Your task to perform on an android device: see tabs open on other devices in the chrome app Image 0: 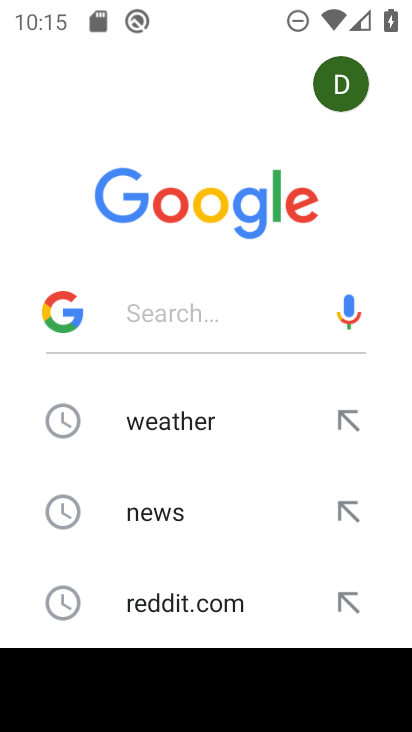
Step 0: press home button
Your task to perform on an android device: see tabs open on other devices in the chrome app Image 1: 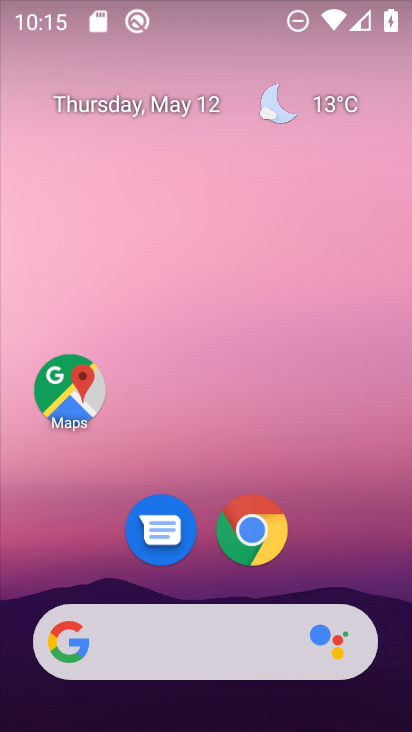
Step 1: click (269, 524)
Your task to perform on an android device: see tabs open on other devices in the chrome app Image 2: 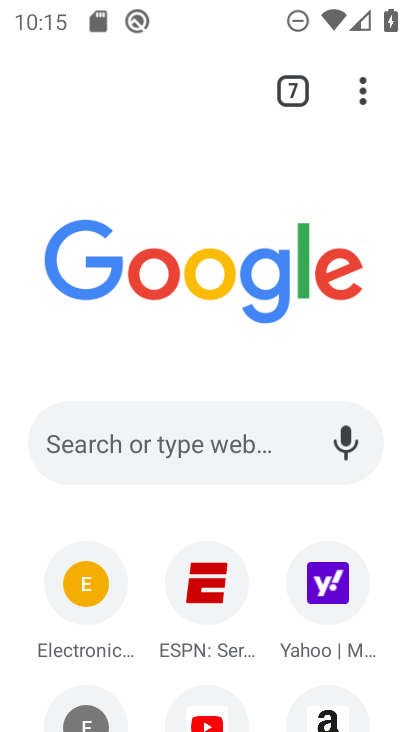
Step 2: click (365, 81)
Your task to perform on an android device: see tabs open on other devices in the chrome app Image 3: 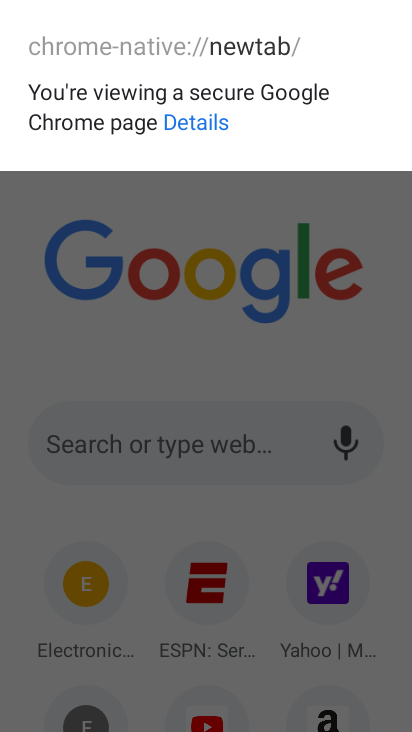
Step 3: press back button
Your task to perform on an android device: see tabs open on other devices in the chrome app Image 4: 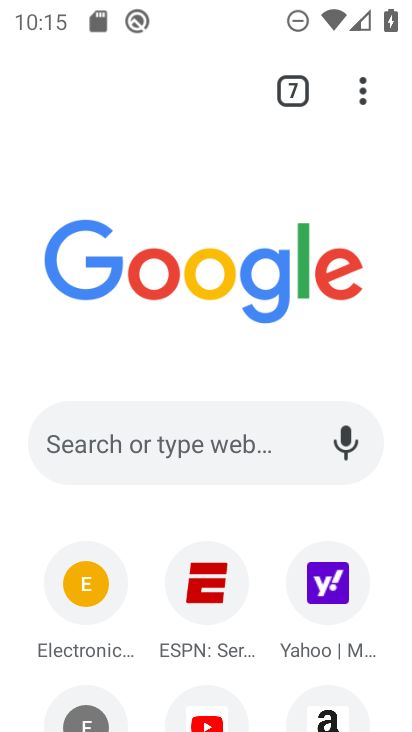
Step 4: click (357, 87)
Your task to perform on an android device: see tabs open on other devices in the chrome app Image 5: 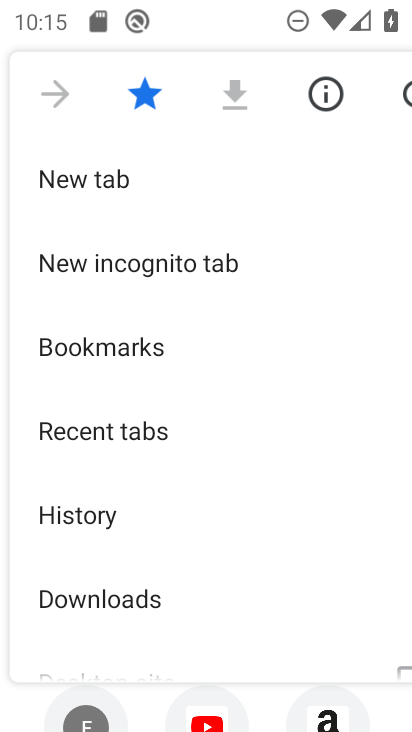
Step 5: click (96, 424)
Your task to perform on an android device: see tabs open on other devices in the chrome app Image 6: 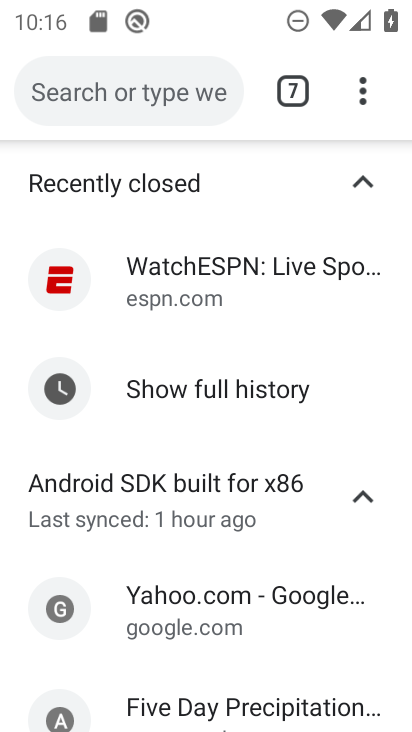
Step 6: task complete